Your task to perform on an android device: turn off improve location accuracy Image 0: 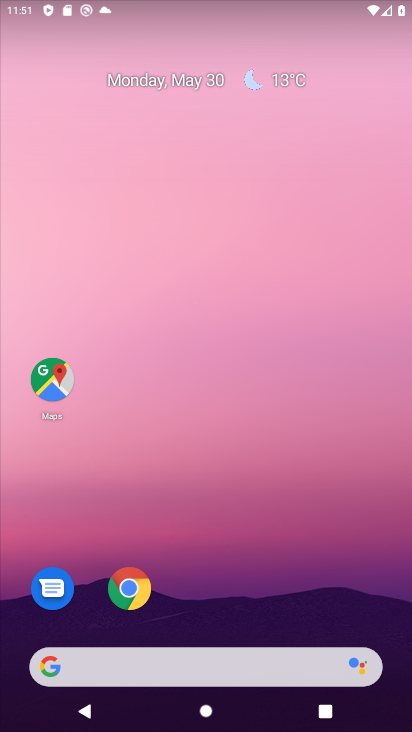
Step 0: drag from (388, 725) to (332, 221)
Your task to perform on an android device: turn off improve location accuracy Image 1: 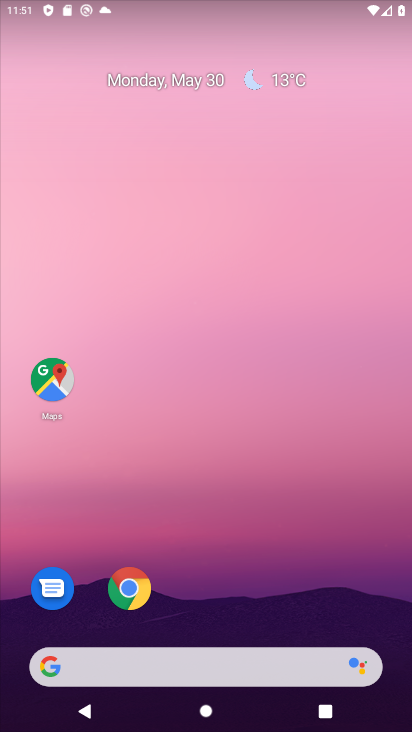
Step 1: drag from (390, 718) to (277, 28)
Your task to perform on an android device: turn off improve location accuracy Image 2: 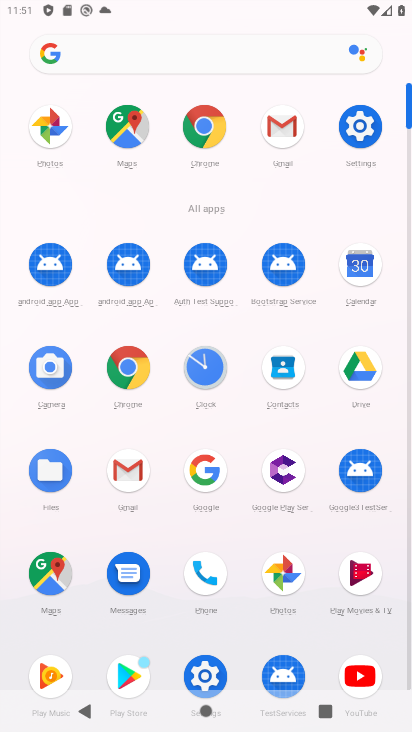
Step 2: click (371, 130)
Your task to perform on an android device: turn off improve location accuracy Image 3: 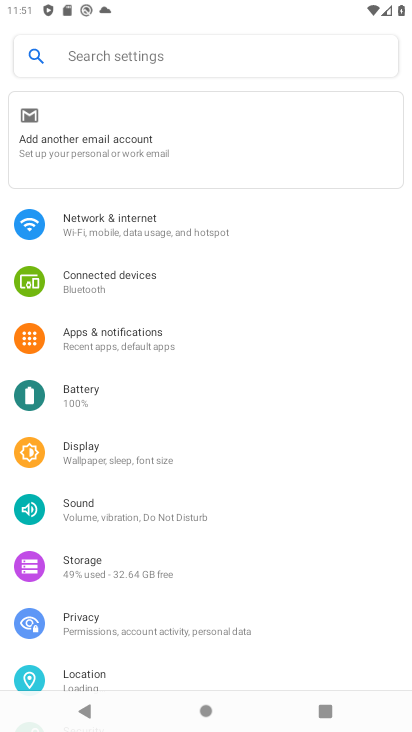
Step 3: drag from (325, 575) to (324, 230)
Your task to perform on an android device: turn off improve location accuracy Image 4: 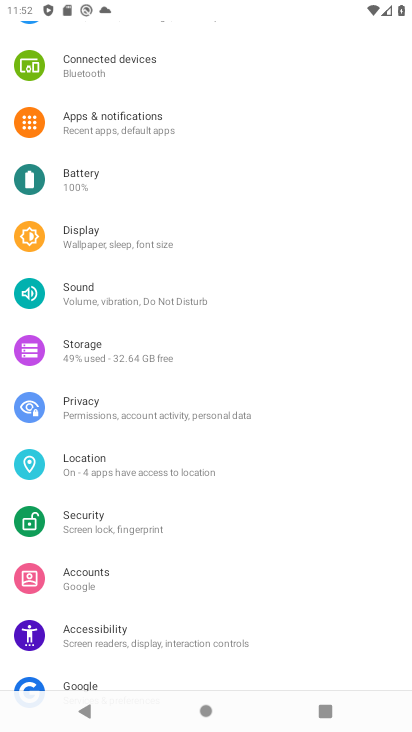
Step 4: click (146, 471)
Your task to perform on an android device: turn off improve location accuracy Image 5: 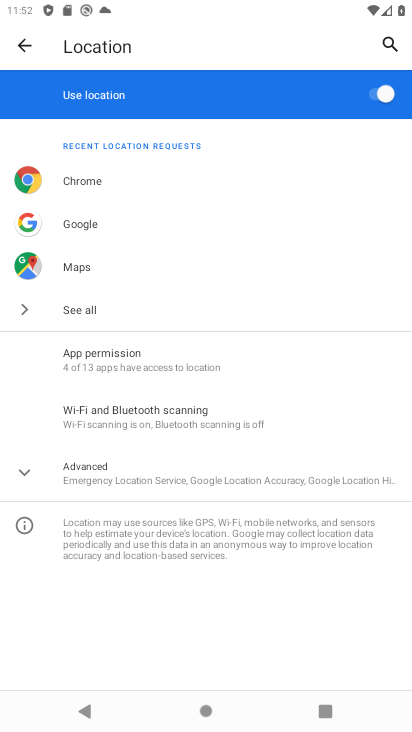
Step 5: click (25, 472)
Your task to perform on an android device: turn off improve location accuracy Image 6: 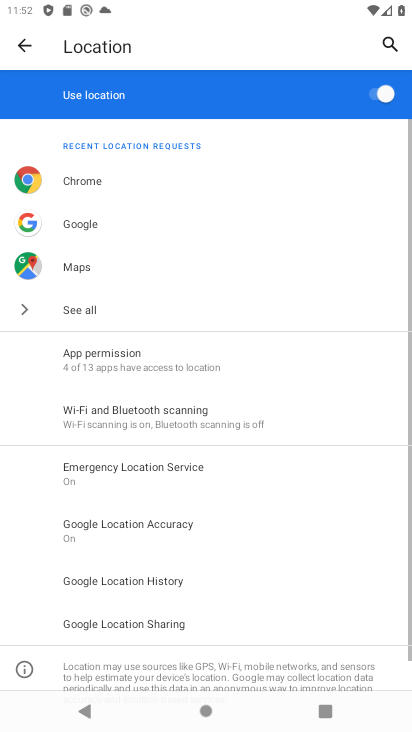
Step 6: drag from (319, 570) to (317, 266)
Your task to perform on an android device: turn off improve location accuracy Image 7: 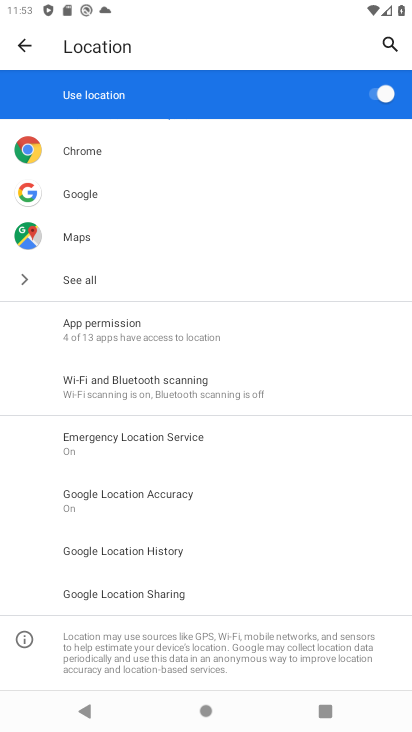
Step 7: click (153, 493)
Your task to perform on an android device: turn off improve location accuracy Image 8: 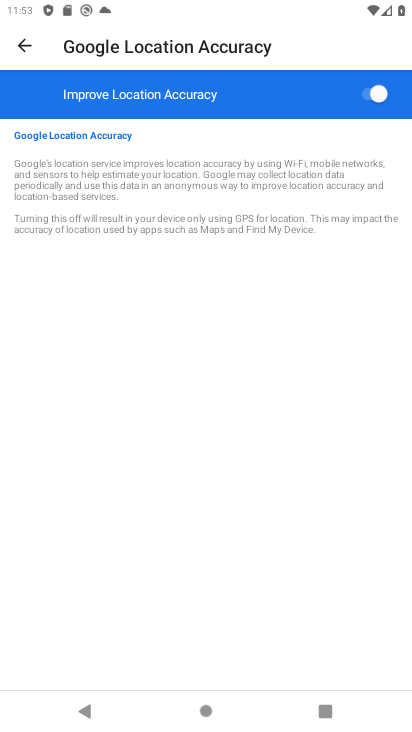
Step 8: click (361, 93)
Your task to perform on an android device: turn off improve location accuracy Image 9: 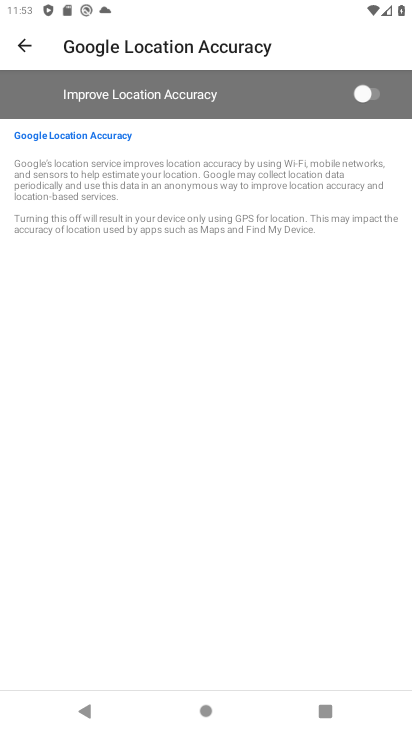
Step 9: task complete